Your task to perform on an android device: allow cookies in the chrome app Image 0: 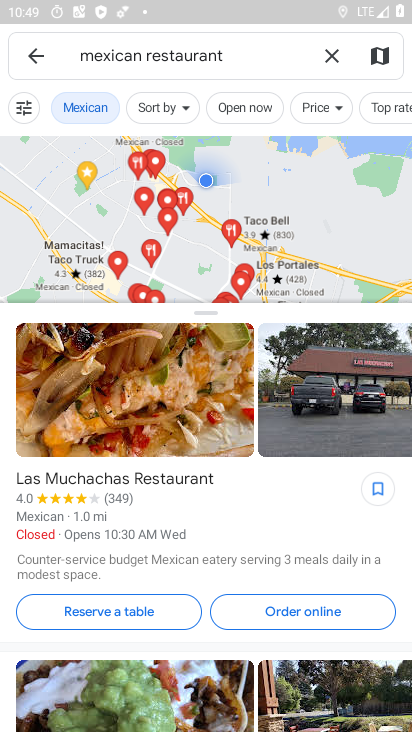
Step 0: press home button
Your task to perform on an android device: allow cookies in the chrome app Image 1: 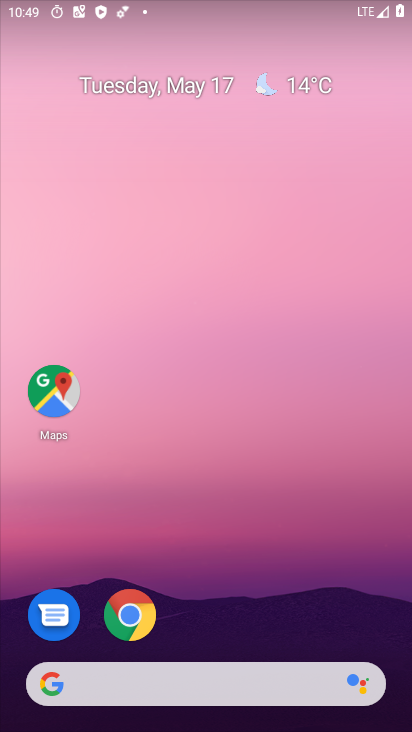
Step 1: click (136, 611)
Your task to perform on an android device: allow cookies in the chrome app Image 2: 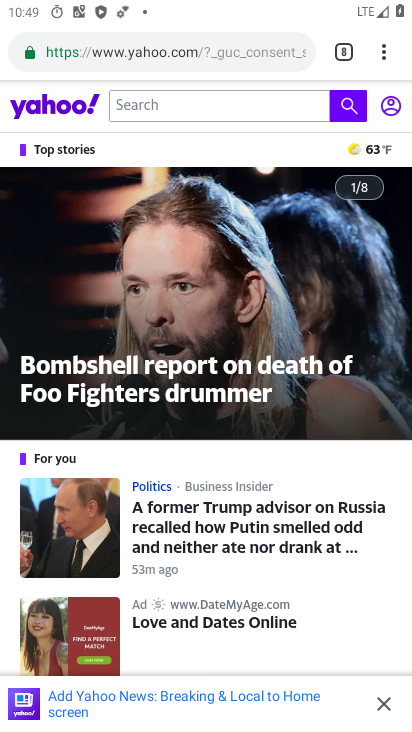
Step 2: drag from (384, 51) to (237, 635)
Your task to perform on an android device: allow cookies in the chrome app Image 3: 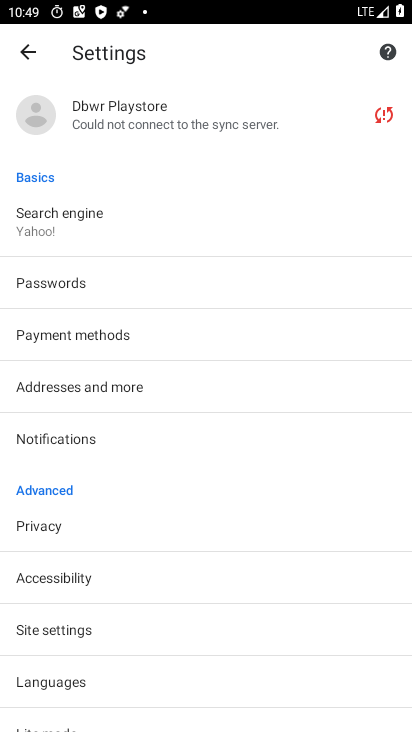
Step 3: click (83, 635)
Your task to perform on an android device: allow cookies in the chrome app Image 4: 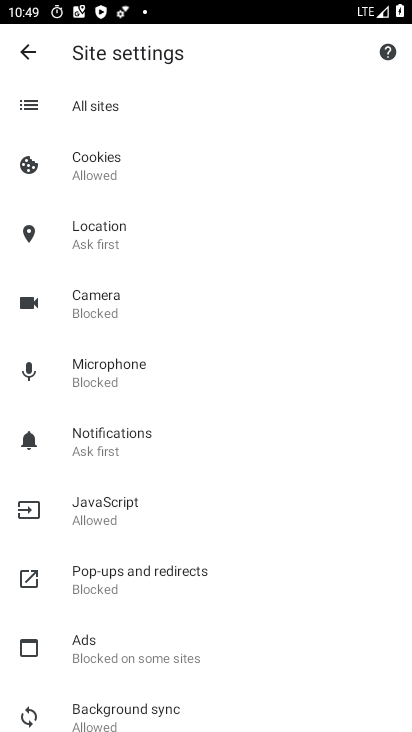
Step 4: click (110, 161)
Your task to perform on an android device: allow cookies in the chrome app Image 5: 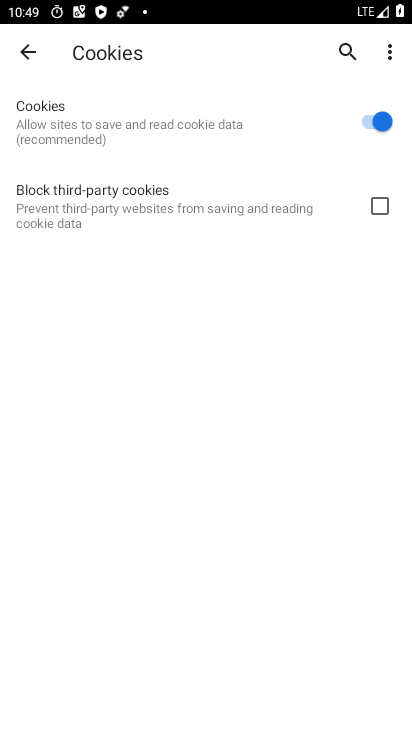
Step 5: task complete